Your task to perform on an android device: Open eBay Image 0: 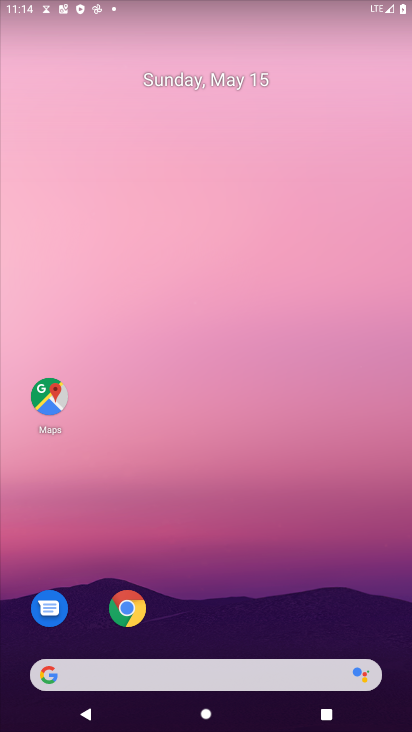
Step 0: drag from (338, 320) to (366, 140)
Your task to perform on an android device: Open eBay Image 1: 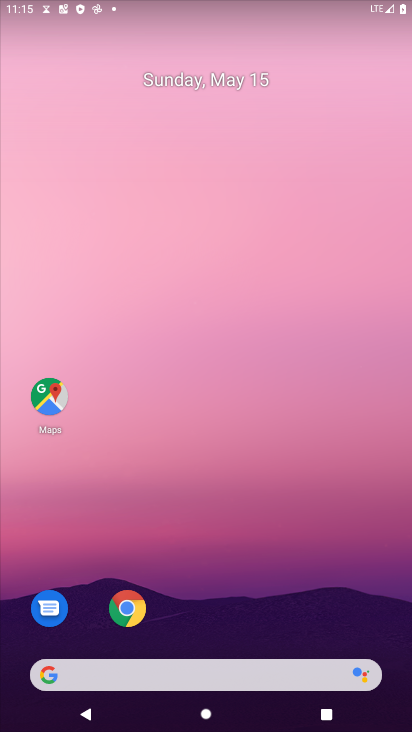
Step 1: drag from (265, 540) to (259, 0)
Your task to perform on an android device: Open eBay Image 2: 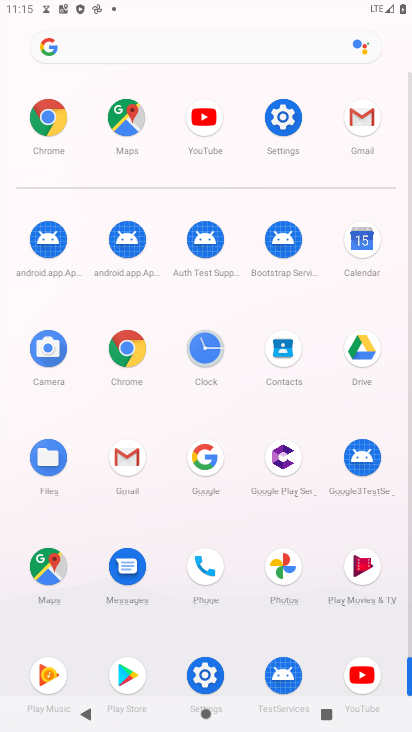
Step 2: click (61, 116)
Your task to perform on an android device: Open eBay Image 3: 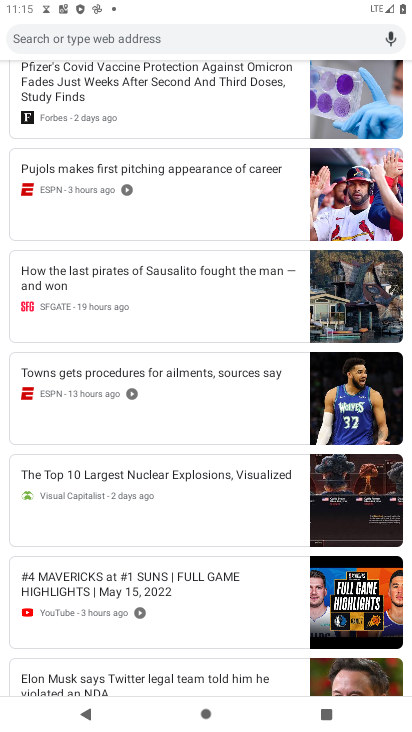
Step 3: drag from (156, 124) to (129, 622)
Your task to perform on an android device: Open eBay Image 4: 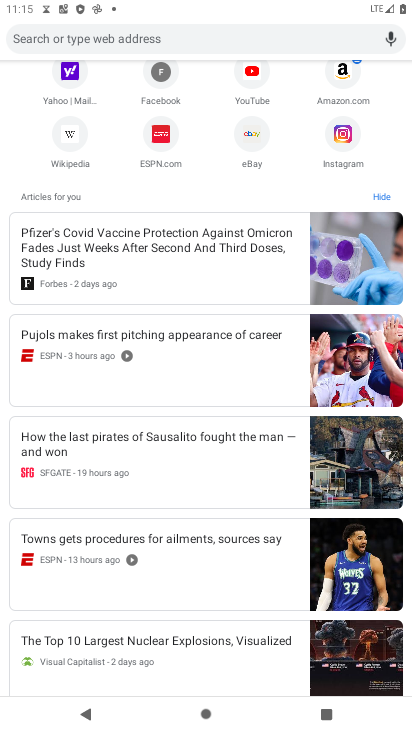
Step 4: click (249, 138)
Your task to perform on an android device: Open eBay Image 5: 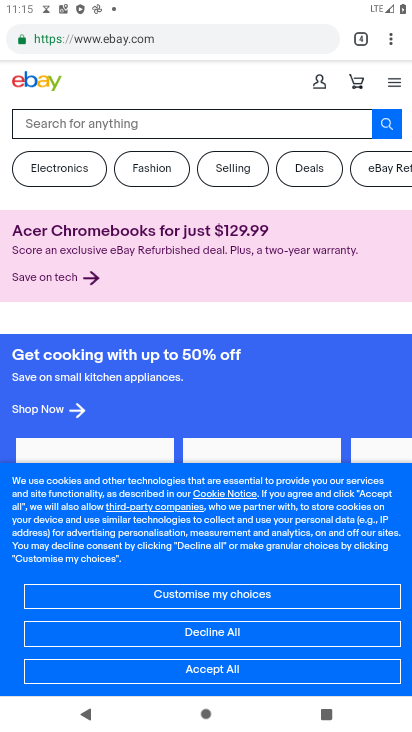
Step 5: task complete